Your task to perform on an android device: open wifi settings Image 0: 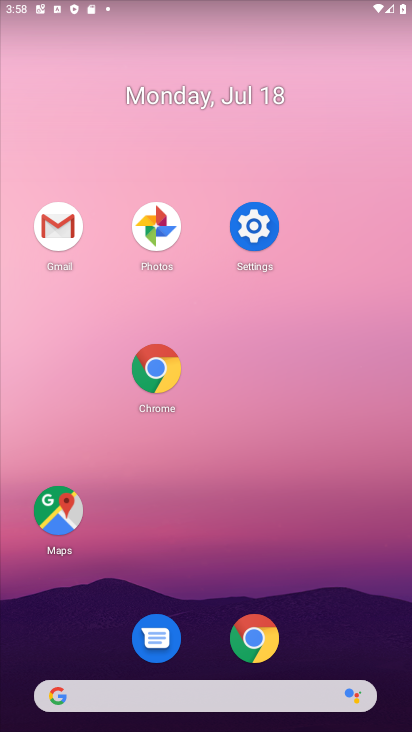
Step 0: click (270, 216)
Your task to perform on an android device: open wifi settings Image 1: 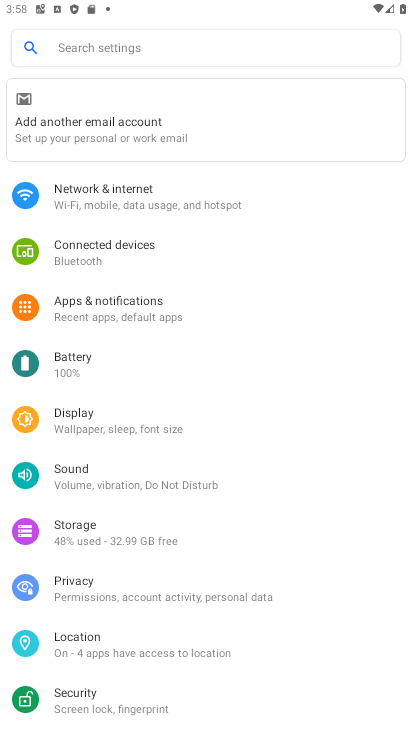
Step 1: click (93, 196)
Your task to perform on an android device: open wifi settings Image 2: 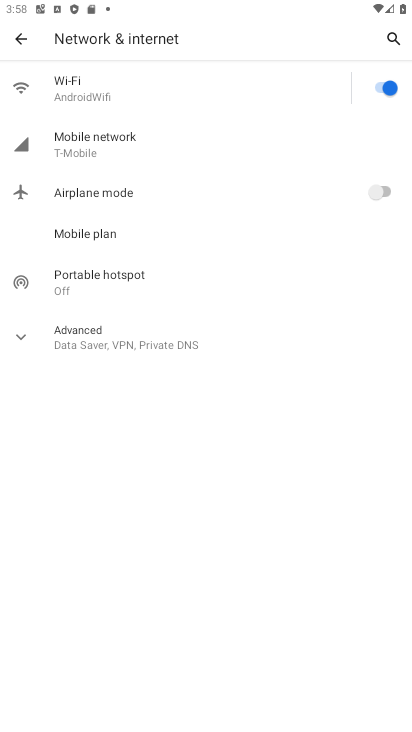
Step 2: click (134, 71)
Your task to perform on an android device: open wifi settings Image 3: 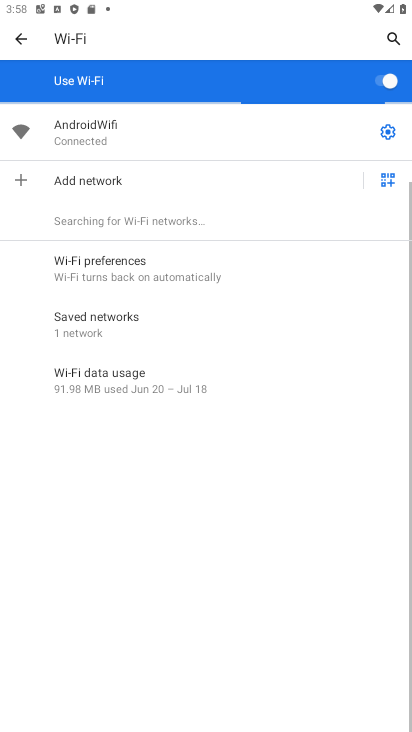
Step 3: click (393, 130)
Your task to perform on an android device: open wifi settings Image 4: 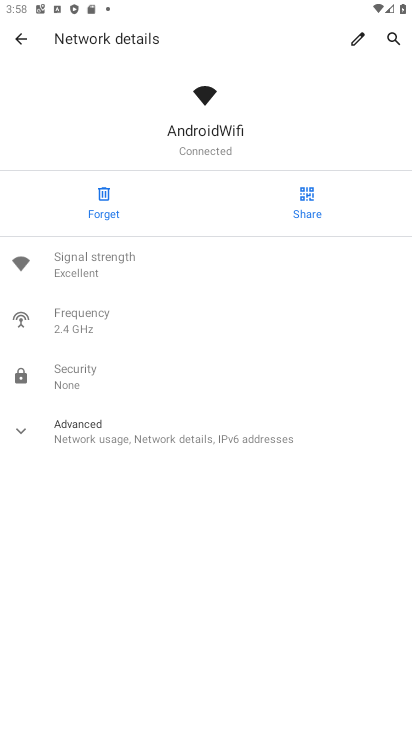
Step 4: task complete